Your task to perform on an android device: What's the weather today? Image 0: 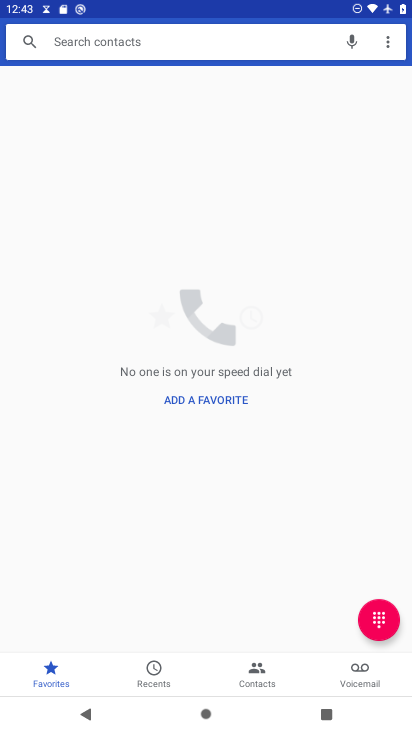
Step 0: press home button
Your task to perform on an android device: What's the weather today? Image 1: 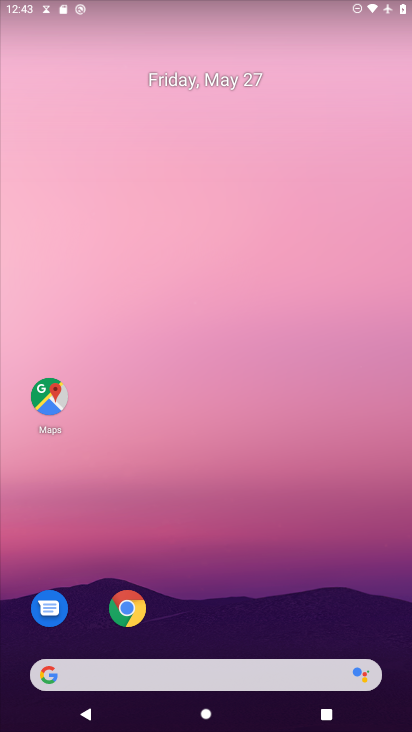
Step 1: click (51, 679)
Your task to perform on an android device: What's the weather today? Image 2: 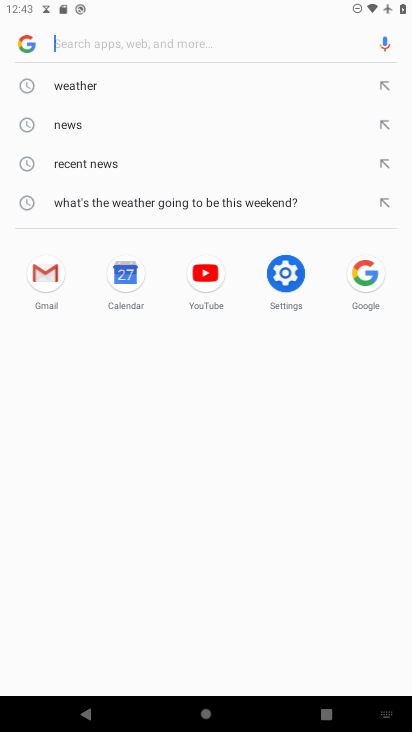
Step 2: click (67, 86)
Your task to perform on an android device: What's the weather today? Image 3: 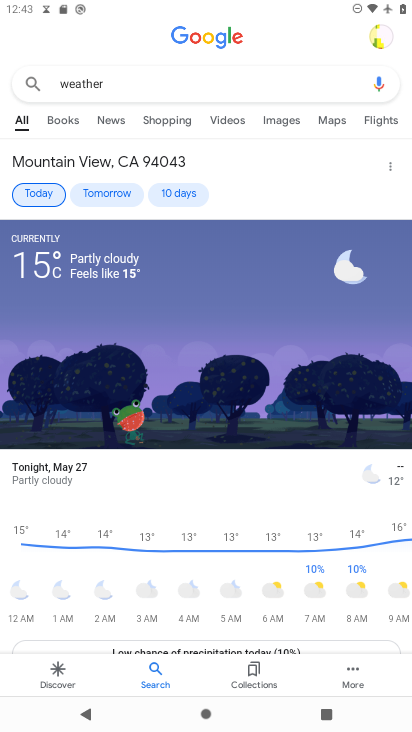
Step 3: task complete